Your task to perform on an android device: open wifi settings Image 0: 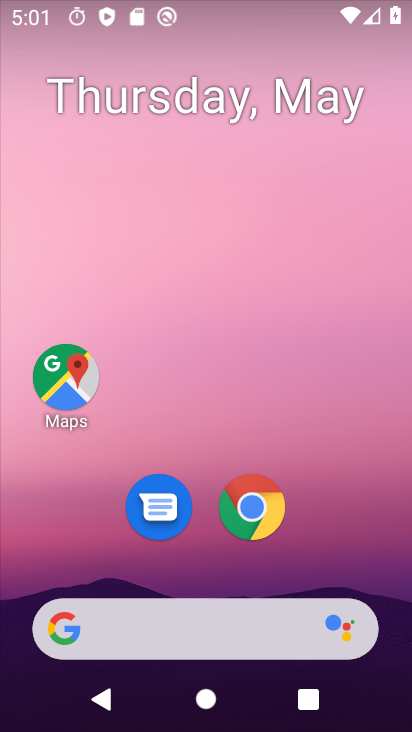
Step 0: drag from (356, 520) to (245, 91)
Your task to perform on an android device: open wifi settings Image 1: 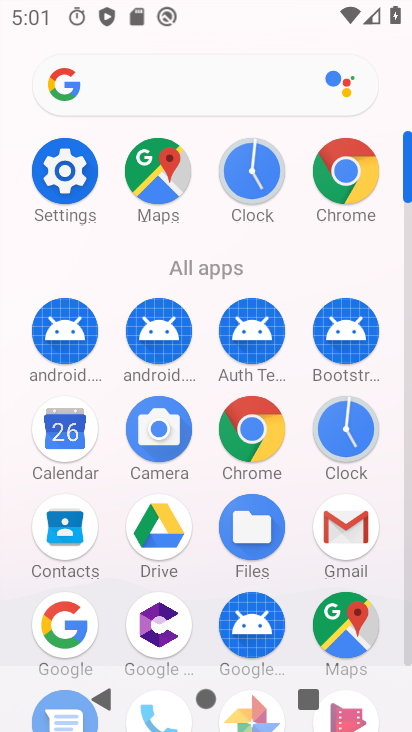
Step 1: click (74, 182)
Your task to perform on an android device: open wifi settings Image 2: 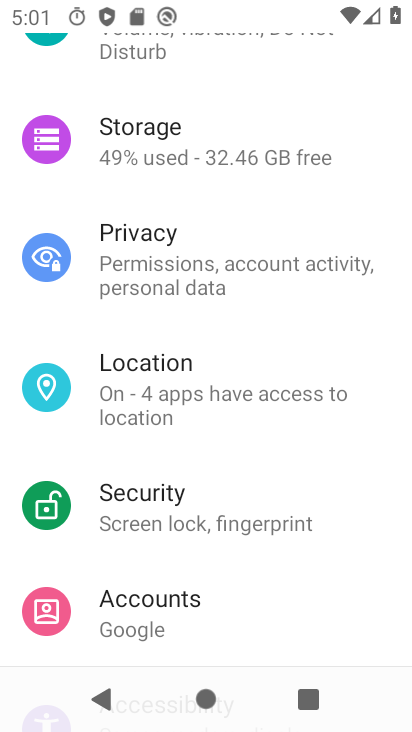
Step 2: drag from (193, 138) to (359, 525)
Your task to perform on an android device: open wifi settings Image 3: 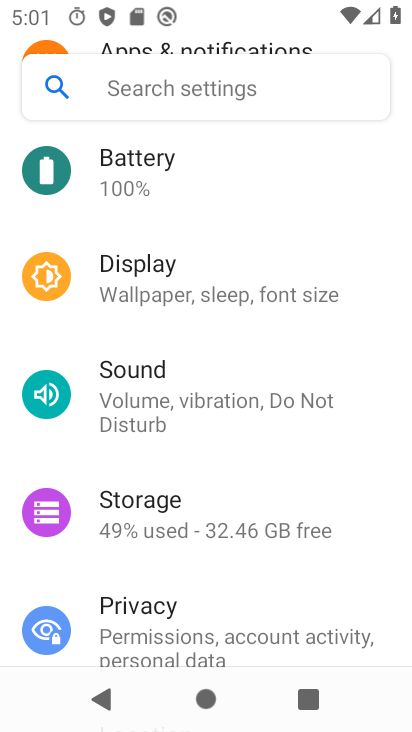
Step 3: drag from (164, 174) to (288, 558)
Your task to perform on an android device: open wifi settings Image 4: 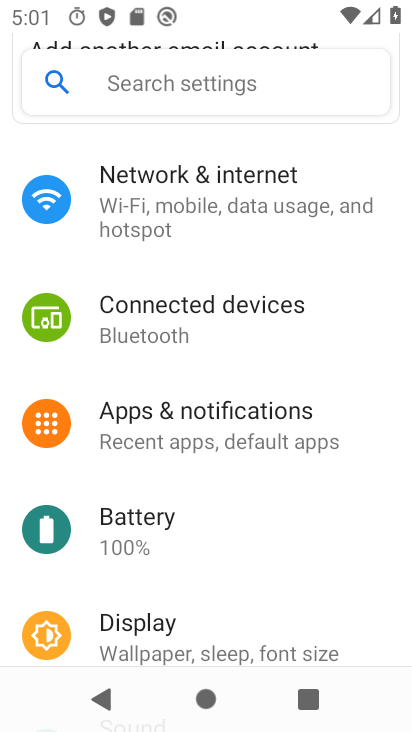
Step 4: click (174, 180)
Your task to perform on an android device: open wifi settings Image 5: 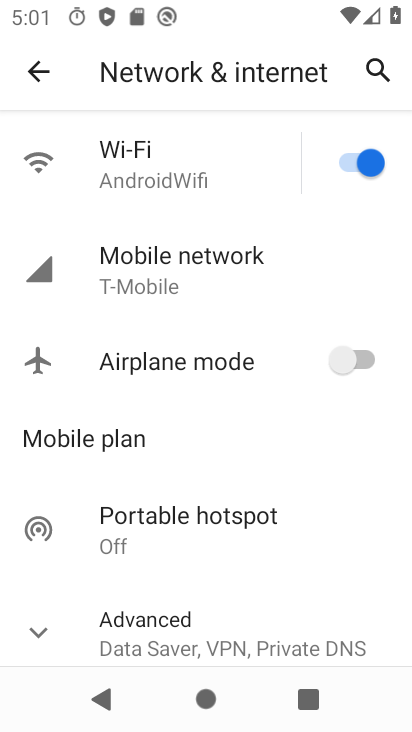
Step 5: click (175, 176)
Your task to perform on an android device: open wifi settings Image 6: 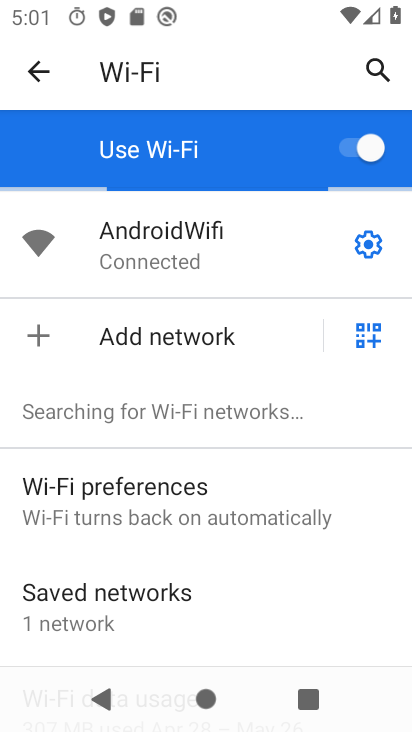
Step 6: click (372, 236)
Your task to perform on an android device: open wifi settings Image 7: 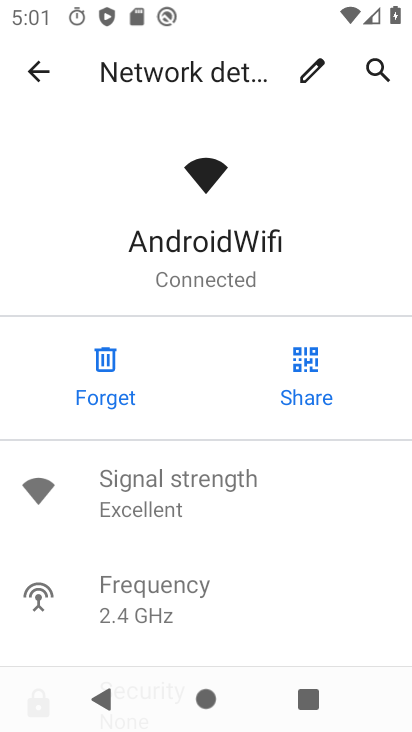
Step 7: task complete